Your task to perform on an android device: delete location history Image 0: 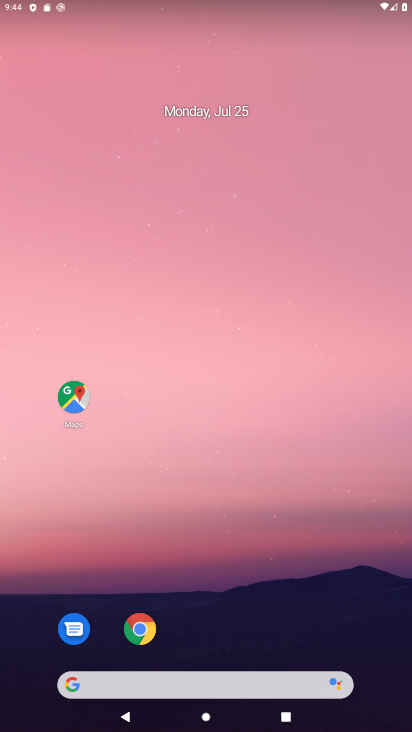
Step 0: drag from (313, 621) to (241, 105)
Your task to perform on an android device: delete location history Image 1: 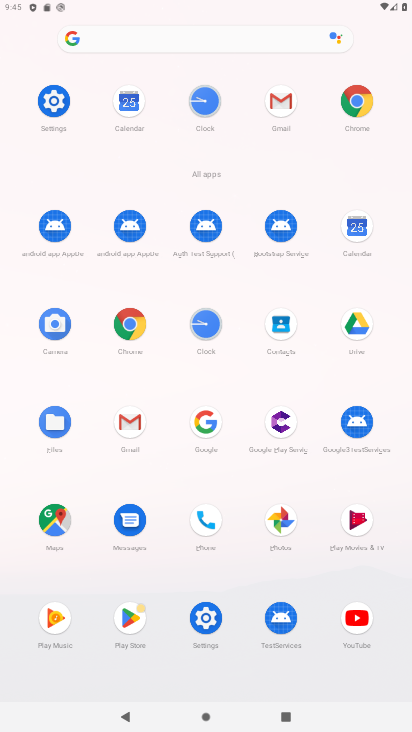
Step 1: click (54, 509)
Your task to perform on an android device: delete location history Image 2: 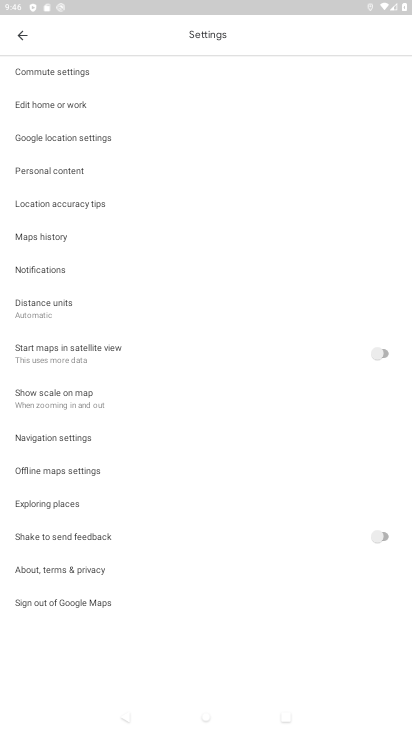
Step 2: click (49, 236)
Your task to perform on an android device: delete location history Image 3: 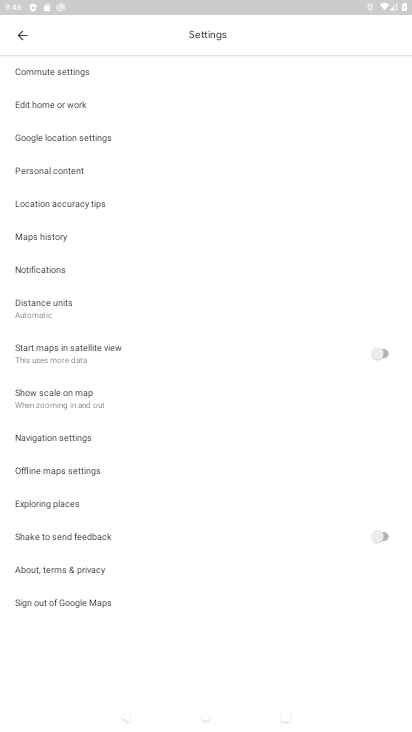
Step 3: click (51, 241)
Your task to perform on an android device: delete location history Image 4: 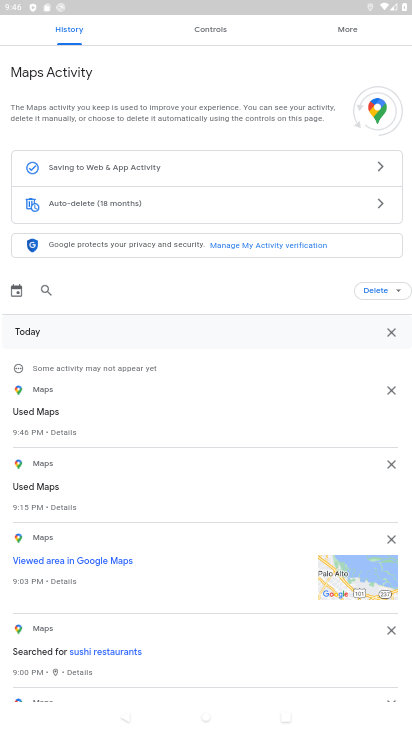
Step 4: click (365, 290)
Your task to perform on an android device: delete location history Image 5: 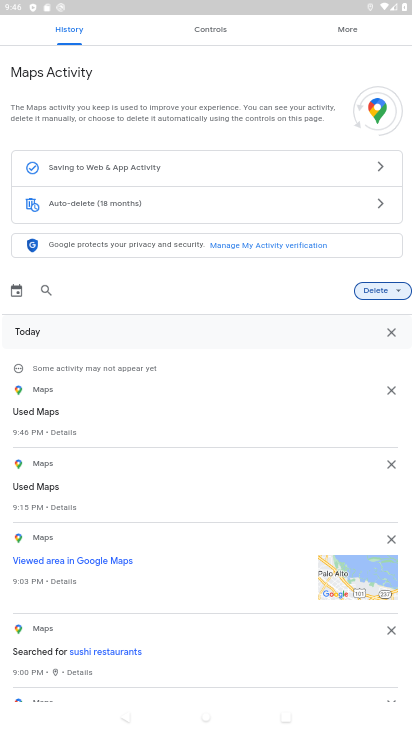
Step 5: click (393, 286)
Your task to perform on an android device: delete location history Image 6: 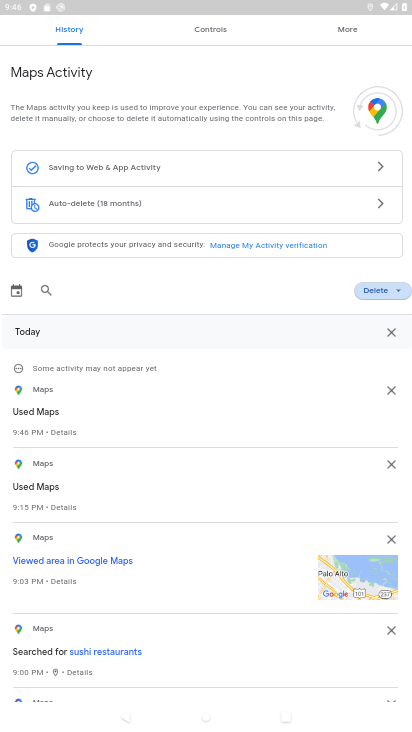
Step 6: click (400, 289)
Your task to perform on an android device: delete location history Image 7: 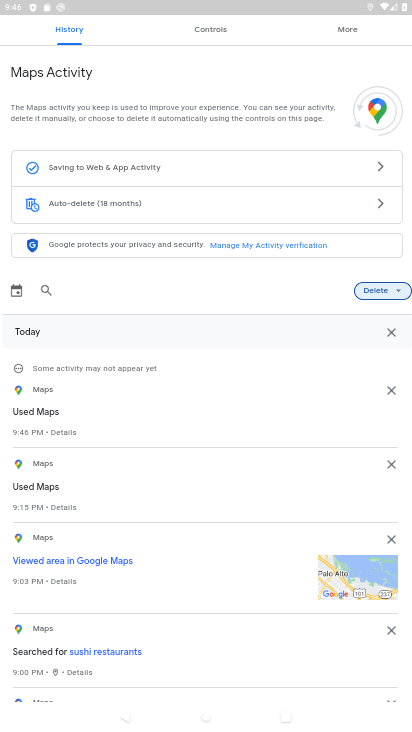
Step 7: click (395, 292)
Your task to perform on an android device: delete location history Image 8: 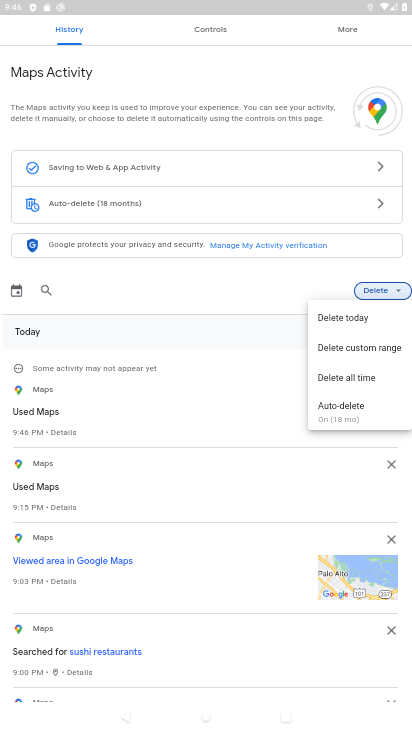
Step 8: click (337, 374)
Your task to perform on an android device: delete location history Image 9: 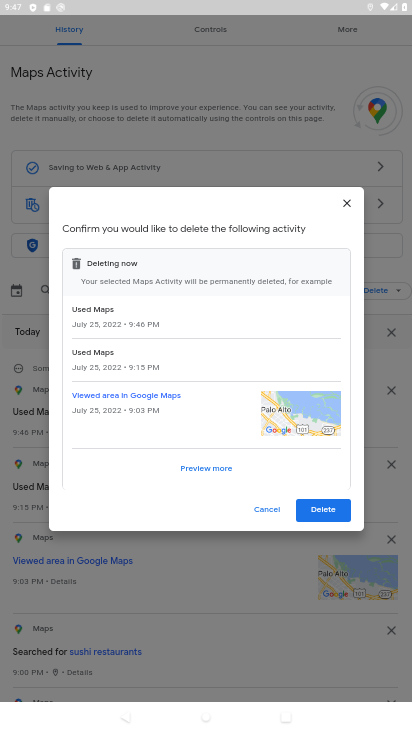
Step 9: click (324, 506)
Your task to perform on an android device: delete location history Image 10: 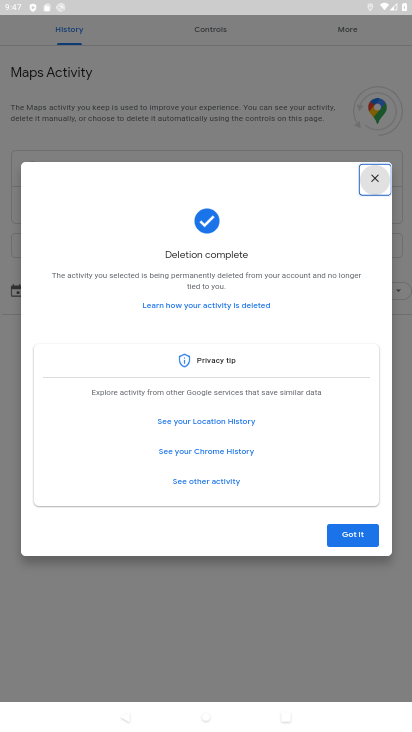
Step 10: task complete